Your task to perform on an android device: stop showing notifications on the lock screen Image 0: 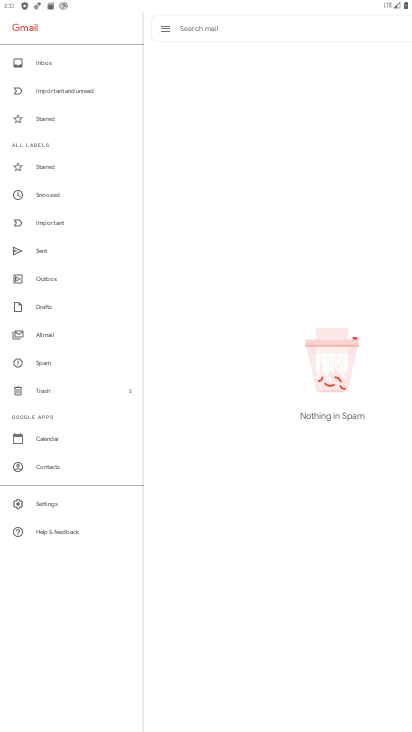
Step 0: press home button
Your task to perform on an android device: stop showing notifications on the lock screen Image 1: 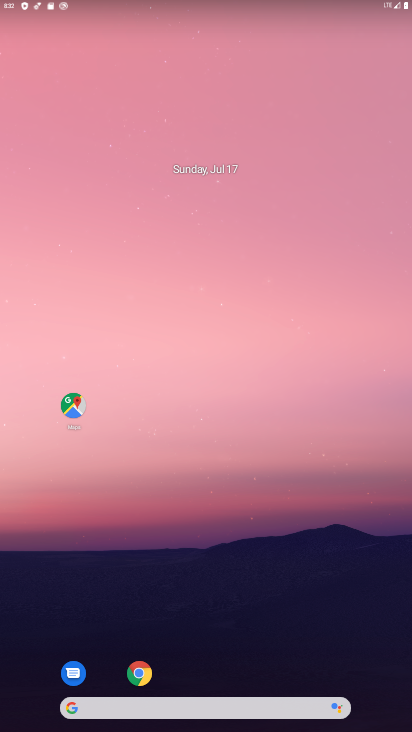
Step 1: drag from (324, 617) to (314, 50)
Your task to perform on an android device: stop showing notifications on the lock screen Image 2: 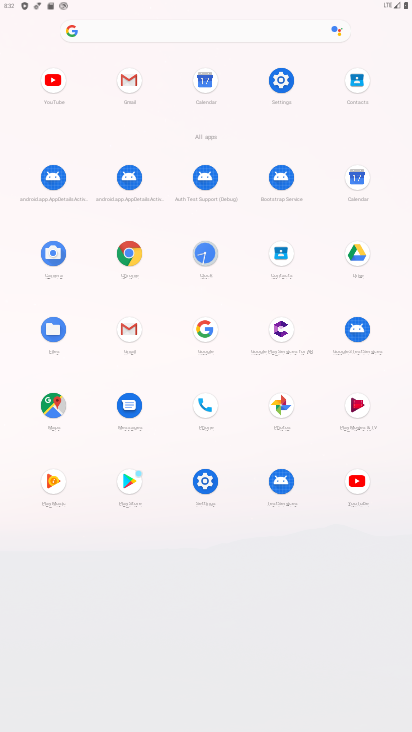
Step 2: click (284, 72)
Your task to perform on an android device: stop showing notifications on the lock screen Image 3: 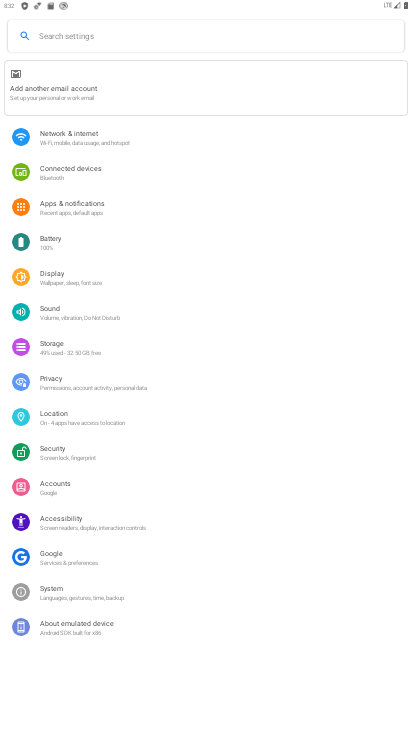
Step 3: click (129, 207)
Your task to perform on an android device: stop showing notifications on the lock screen Image 4: 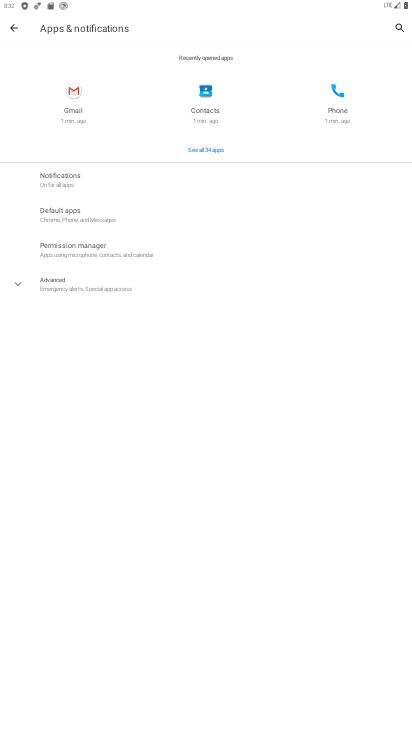
Step 4: click (102, 174)
Your task to perform on an android device: stop showing notifications on the lock screen Image 5: 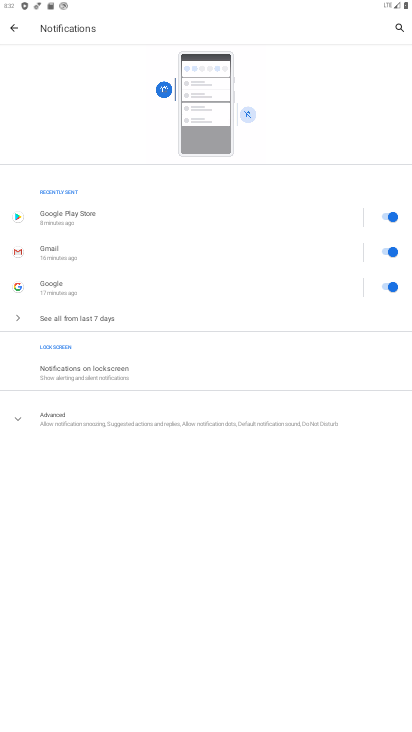
Step 5: click (50, 377)
Your task to perform on an android device: stop showing notifications on the lock screen Image 6: 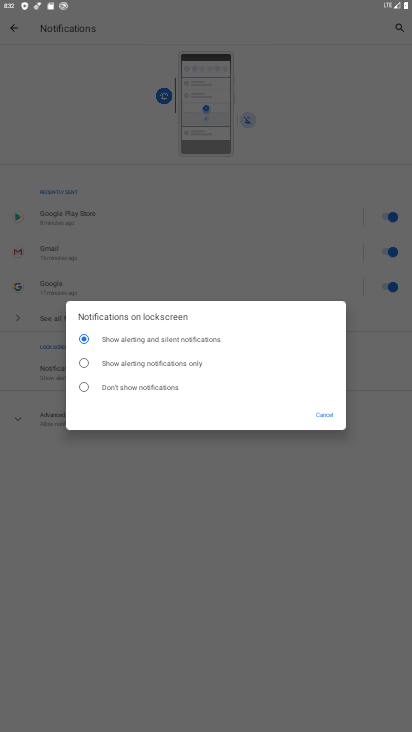
Step 6: click (95, 394)
Your task to perform on an android device: stop showing notifications on the lock screen Image 7: 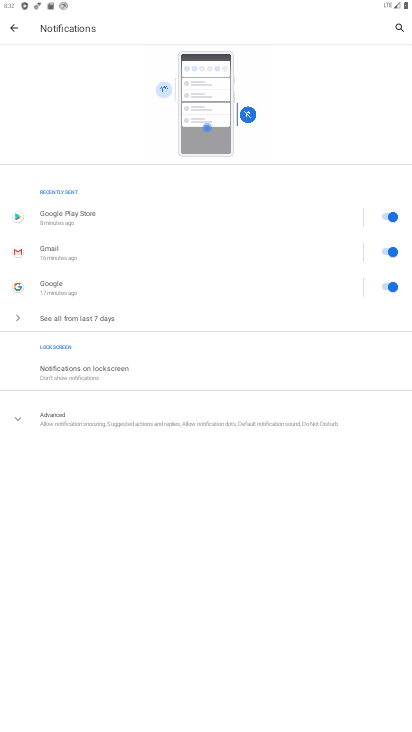
Step 7: task complete